Your task to perform on an android device: Open CNN.com Image 0: 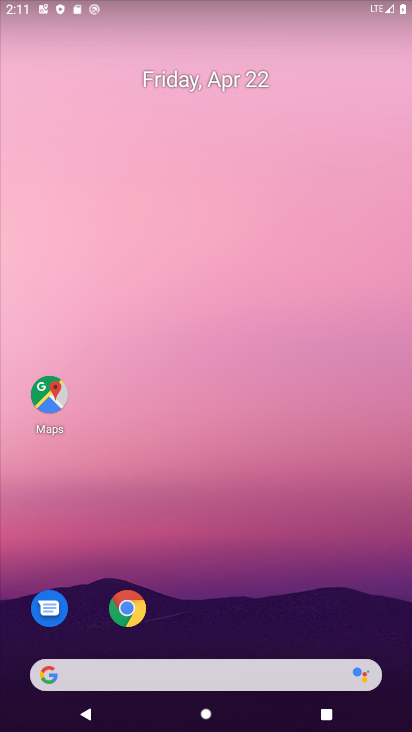
Step 0: drag from (185, 695) to (294, 124)
Your task to perform on an android device: Open CNN.com Image 1: 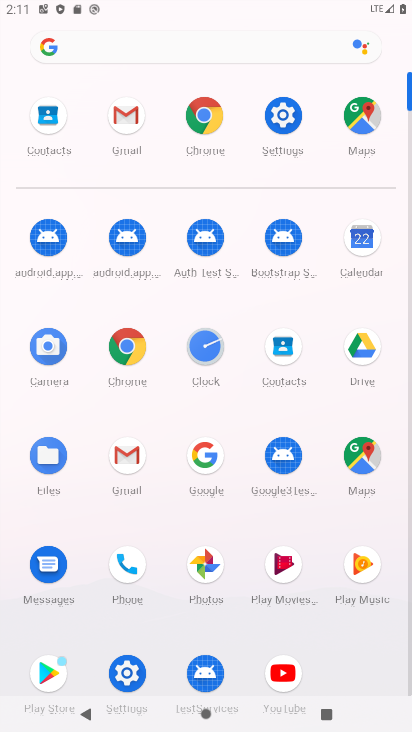
Step 1: click (184, 114)
Your task to perform on an android device: Open CNN.com Image 2: 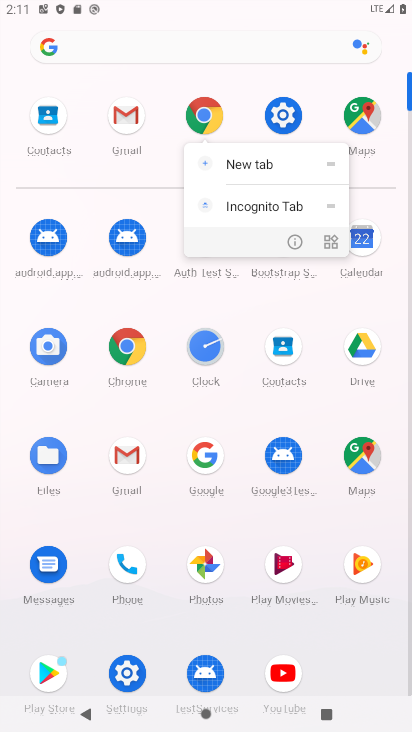
Step 2: click (196, 116)
Your task to perform on an android device: Open CNN.com Image 3: 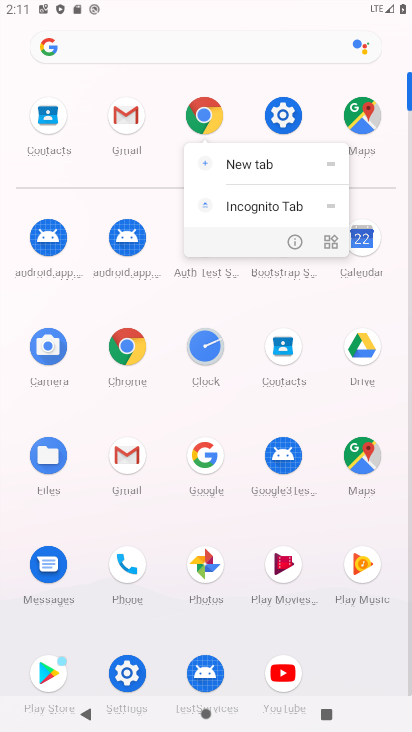
Step 3: click (196, 116)
Your task to perform on an android device: Open CNN.com Image 4: 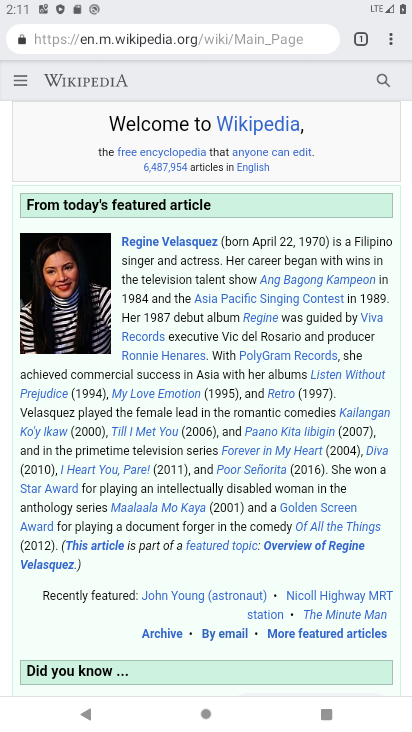
Step 4: click (213, 36)
Your task to perform on an android device: Open CNN.com Image 5: 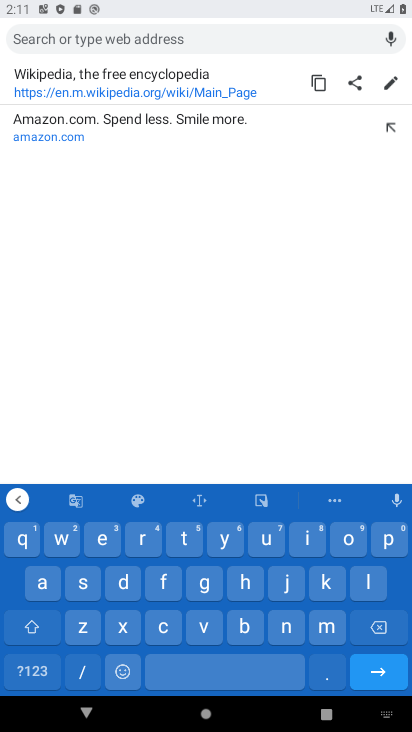
Step 5: click (160, 629)
Your task to perform on an android device: Open CNN.com Image 6: 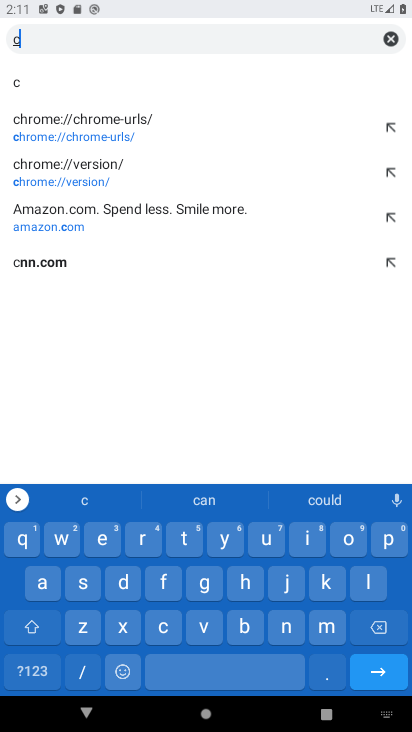
Step 6: click (283, 629)
Your task to perform on an android device: Open CNN.com Image 7: 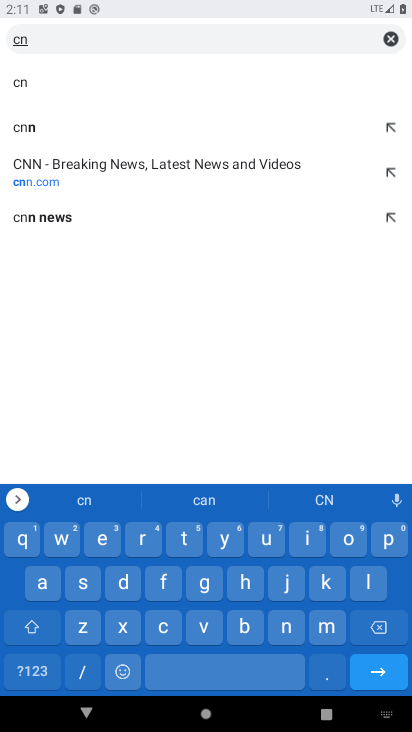
Step 7: click (283, 629)
Your task to perform on an android device: Open CNN.com Image 8: 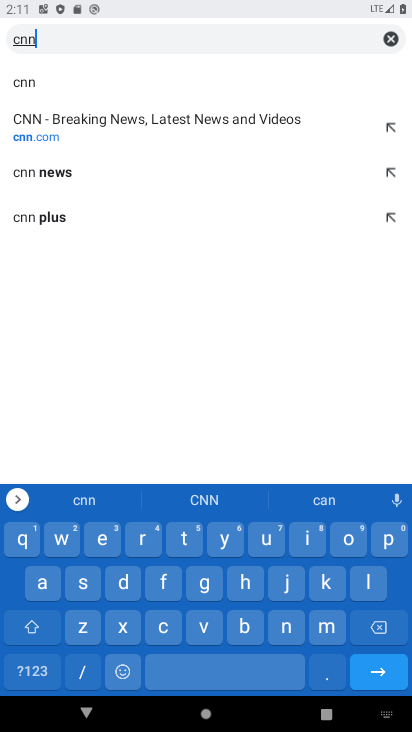
Step 8: drag from (283, 629) to (132, 234)
Your task to perform on an android device: Open CNN.com Image 9: 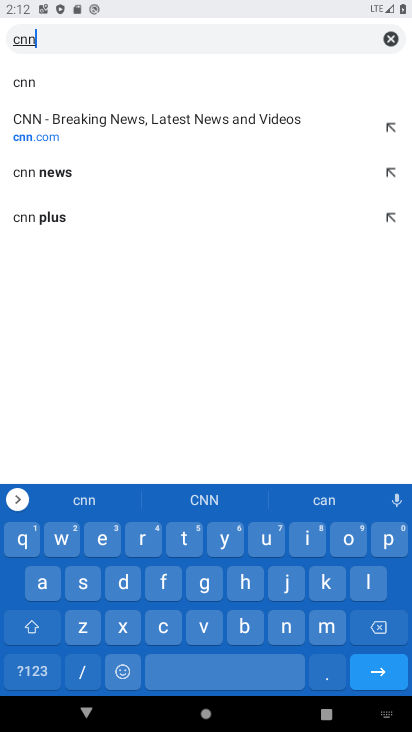
Step 9: click (79, 39)
Your task to perform on an android device: Open CNN.com Image 10: 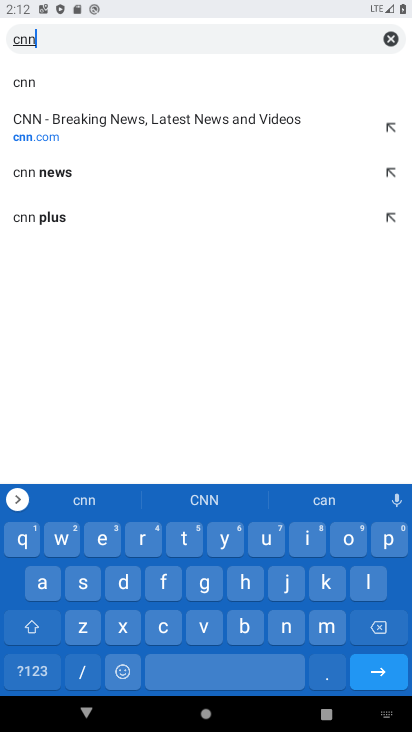
Step 10: click (391, 672)
Your task to perform on an android device: Open CNN.com Image 11: 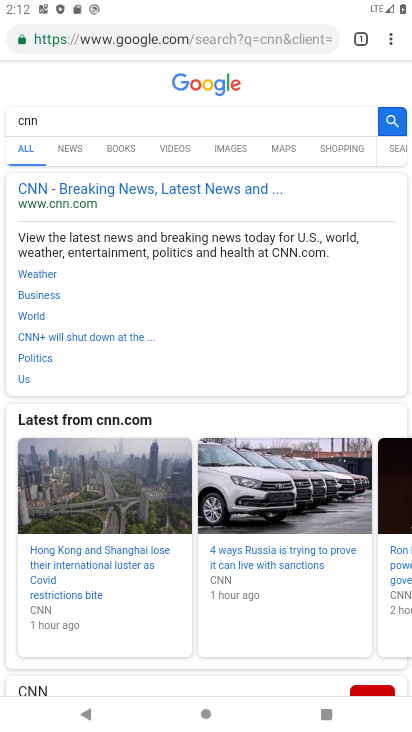
Step 11: click (62, 183)
Your task to perform on an android device: Open CNN.com Image 12: 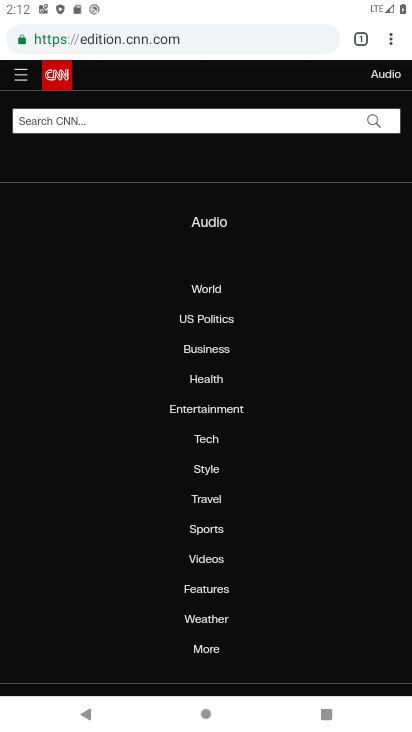
Step 12: task complete